Your task to perform on an android device: check data usage Image 0: 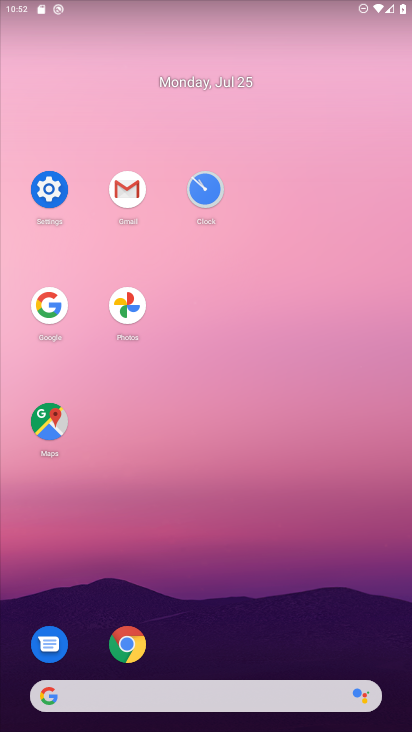
Step 0: click (59, 187)
Your task to perform on an android device: check data usage Image 1: 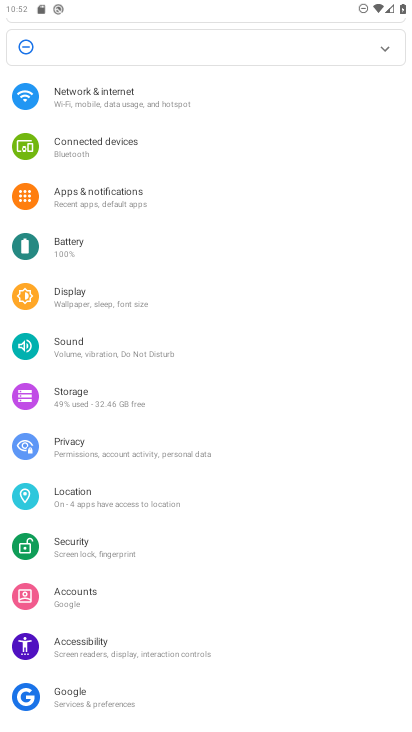
Step 1: click (139, 106)
Your task to perform on an android device: check data usage Image 2: 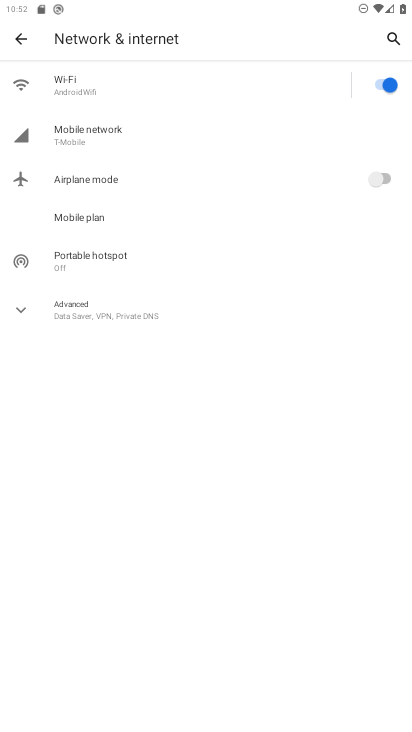
Step 2: click (165, 140)
Your task to perform on an android device: check data usage Image 3: 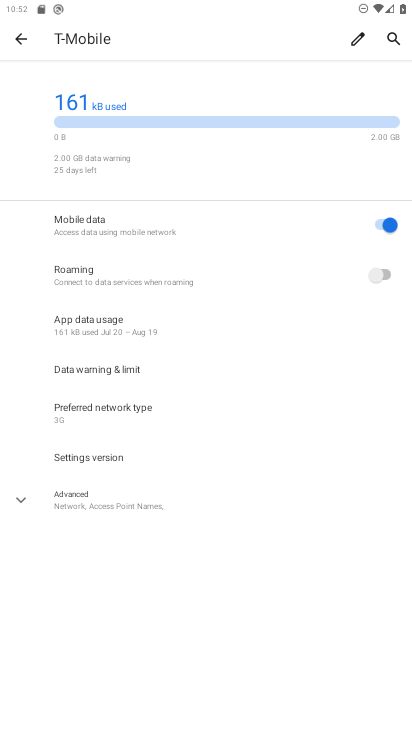
Step 3: task complete